Your task to perform on an android device: What is the news today? Image 0: 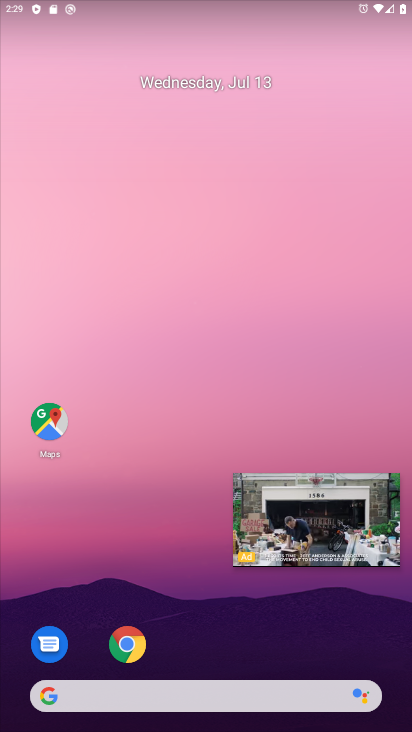
Step 0: click (349, 498)
Your task to perform on an android device: What is the news today? Image 1: 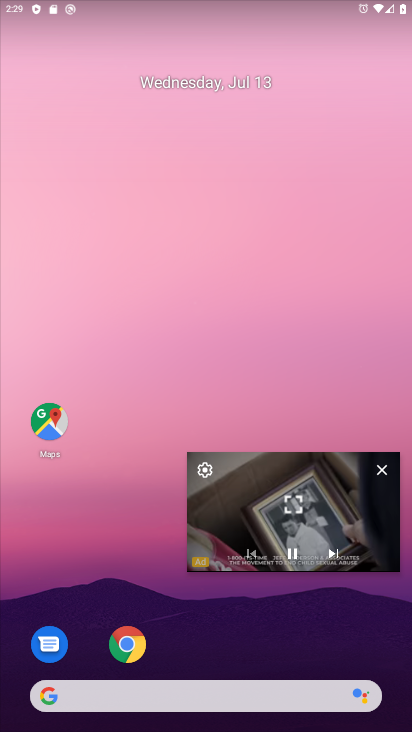
Step 1: click (380, 474)
Your task to perform on an android device: What is the news today? Image 2: 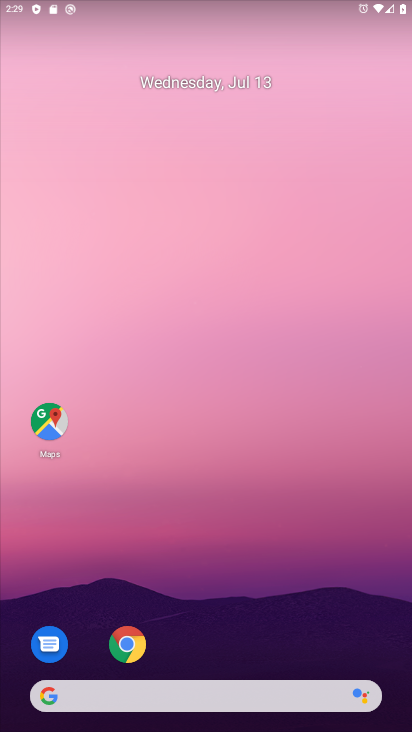
Step 2: click (291, 697)
Your task to perform on an android device: What is the news today? Image 3: 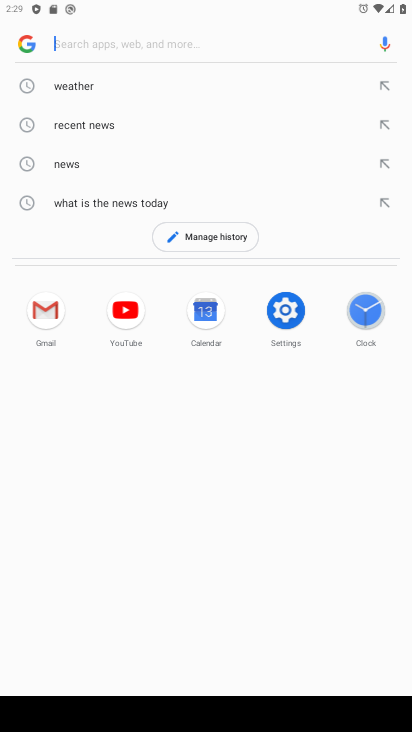
Step 3: click (117, 201)
Your task to perform on an android device: What is the news today? Image 4: 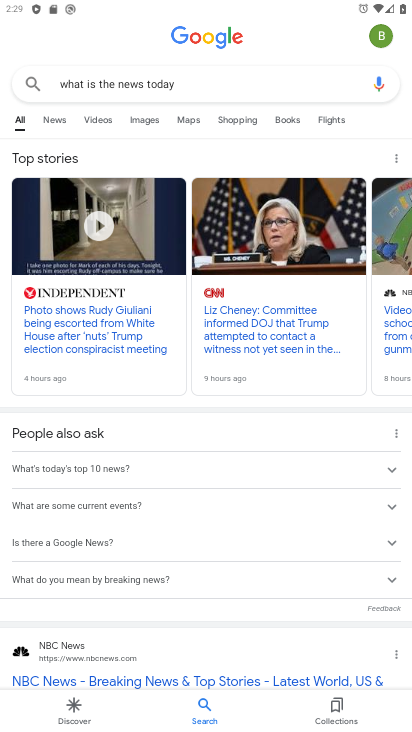
Step 4: task complete